Your task to perform on an android device: add a label to a message in the gmail app Image 0: 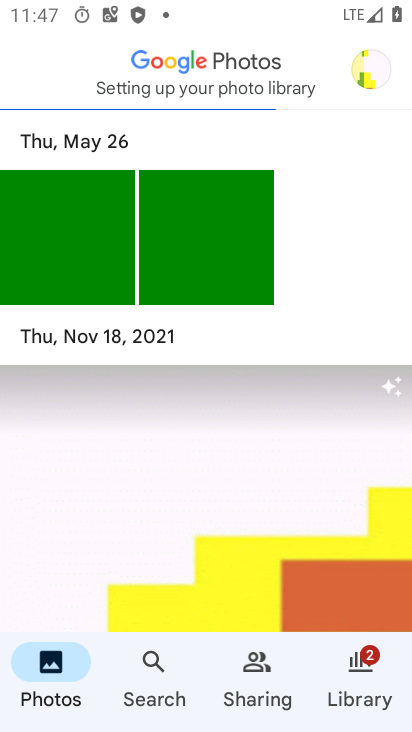
Step 0: press home button
Your task to perform on an android device: add a label to a message in the gmail app Image 1: 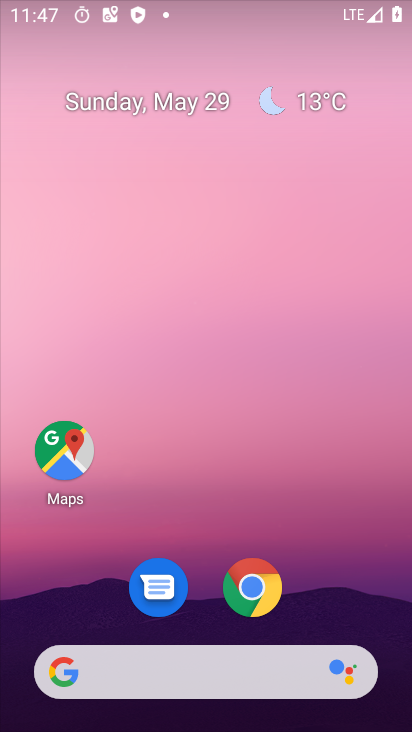
Step 1: drag from (369, 583) to (328, 139)
Your task to perform on an android device: add a label to a message in the gmail app Image 2: 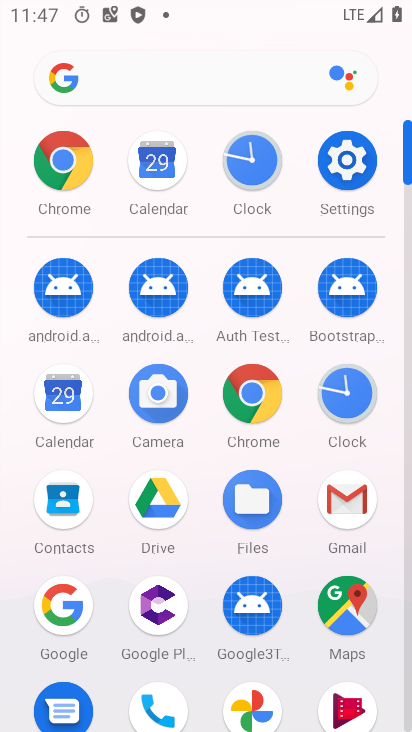
Step 2: click (342, 509)
Your task to perform on an android device: add a label to a message in the gmail app Image 3: 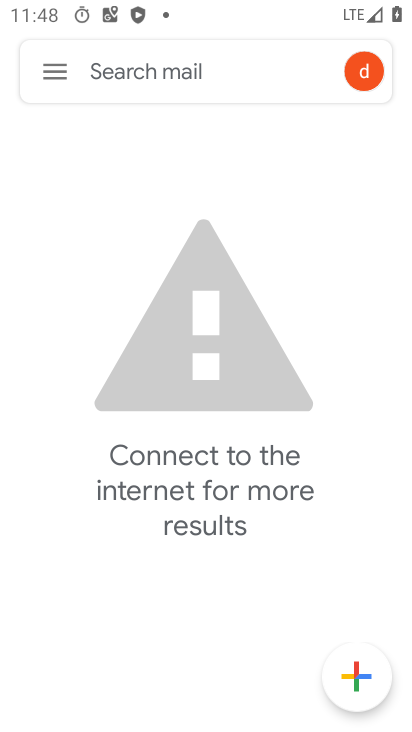
Step 3: click (60, 71)
Your task to perform on an android device: add a label to a message in the gmail app Image 4: 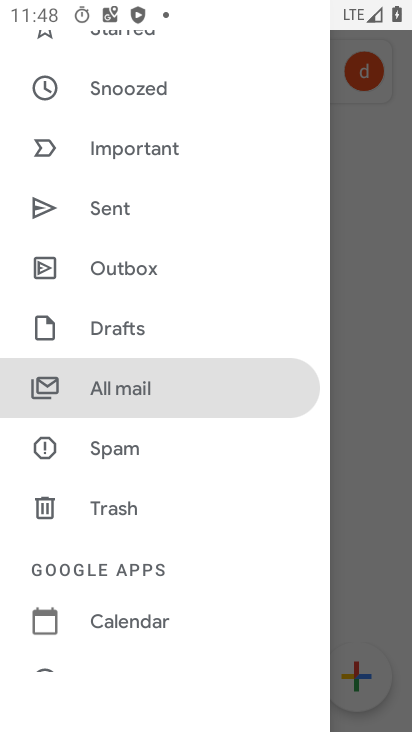
Step 4: click (123, 388)
Your task to perform on an android device: add a label to a message in the gmail app Image 5: 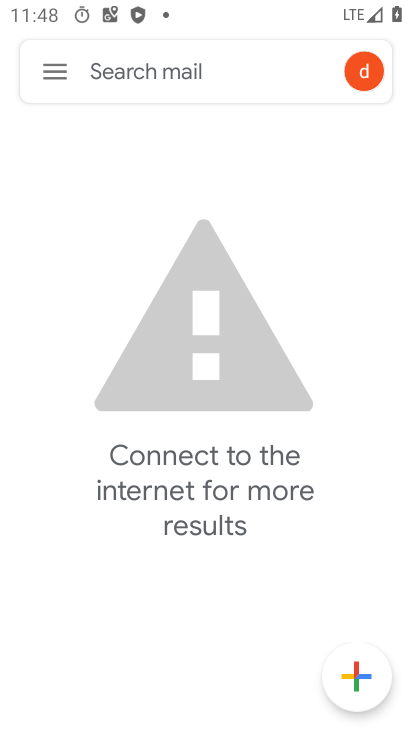
Step 5: task complete